Your task to perform on an android device: open app "VLC for Android" (install if not already installed), go to login, and select forgot password Image 0: 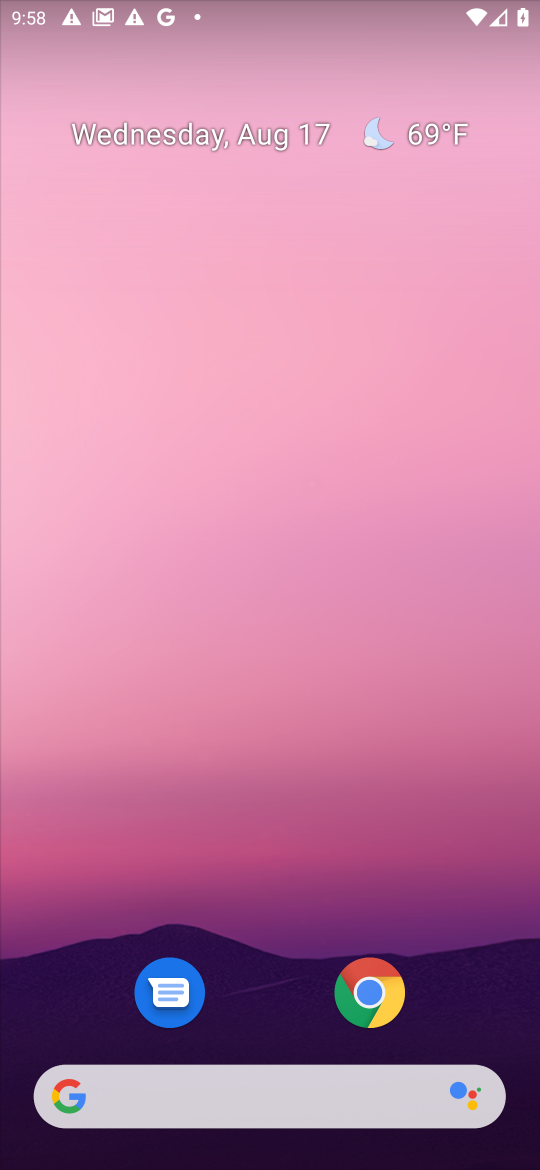
Step 0: drag from (500, 1042) to (243, 29)
Your task to perform on an android device: open app "VLC for Android" (install if not already installed), go to login, and select forgot password Image 1: 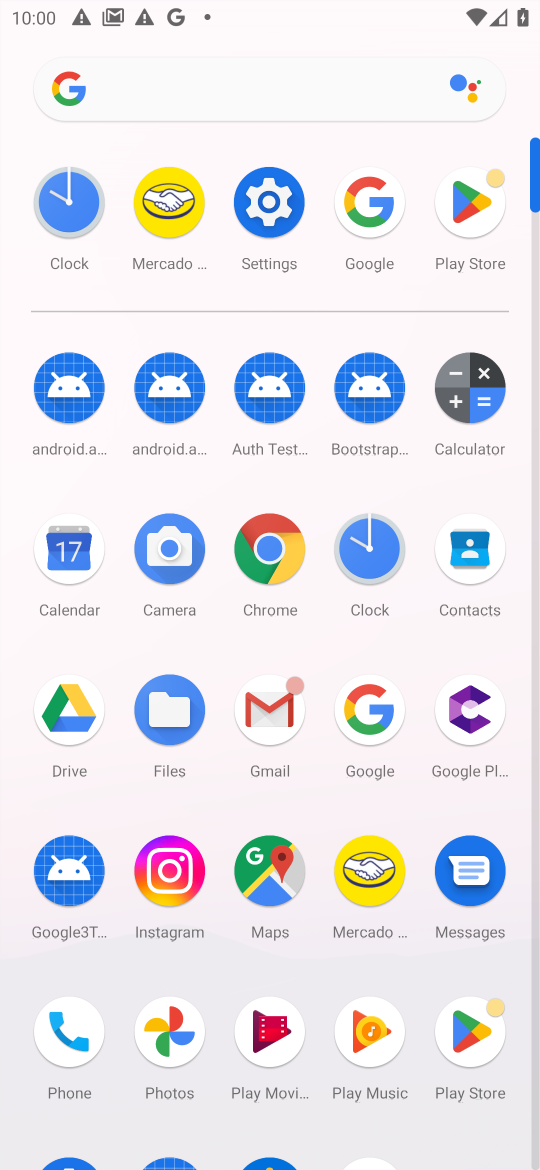
Step 1: click (484, 1028)
Your task to perform on an android device: open app "VLC for Android" (install if not already installed), go to login, and select forgot password Image 2: 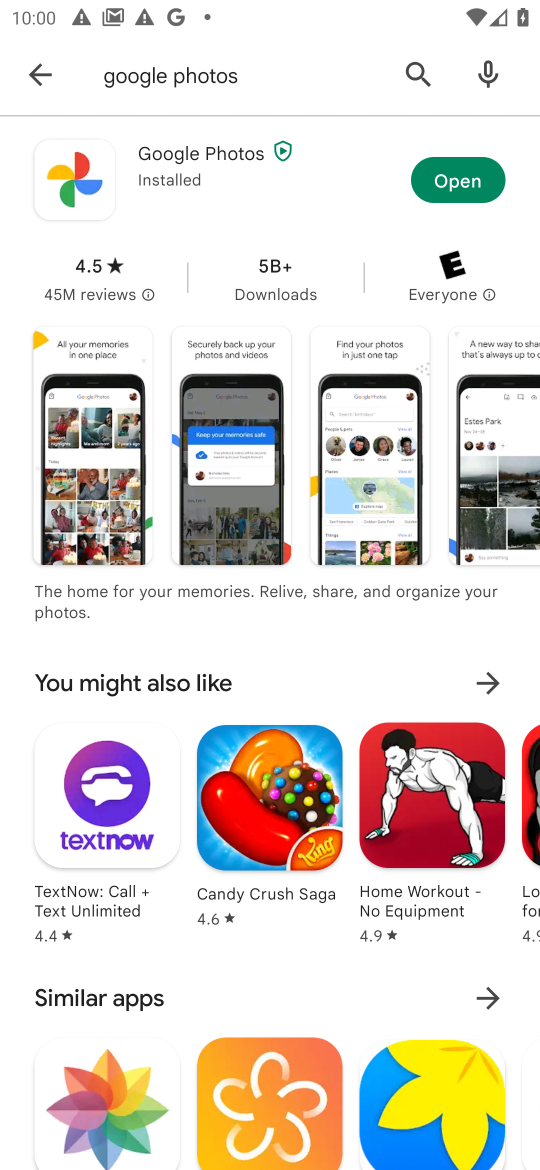
Step 2: press back button
Your task to perform on an android device: open app "VLC for Android" (install if not already installed), go to login, and select forgot password Image 3: 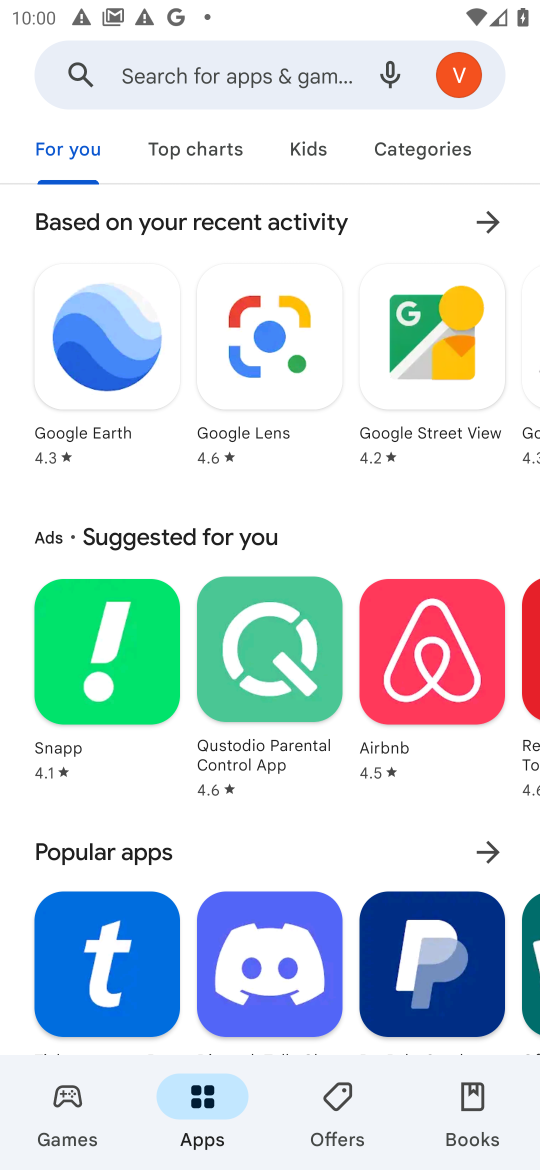
Step 3: click (172, 93)
Your task to perform on an android device: open app "VLC for Android" (install if not already installed), go to login, and select forgot password Image 4: 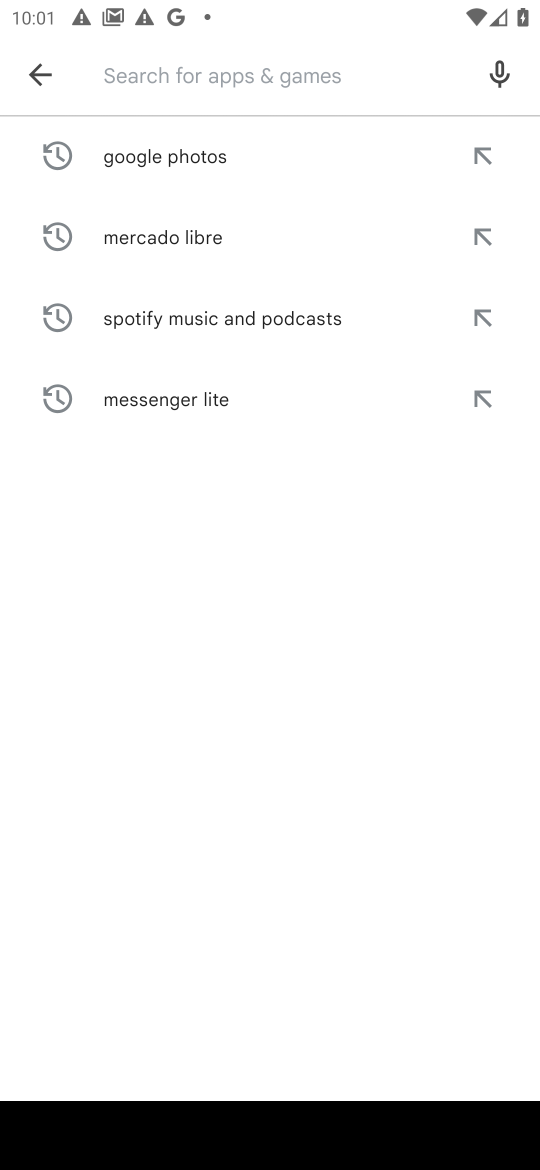
Step 4: type "VLC for Android"
Your task to perform on an android device: open app "VLC for Android" (install if not already installed), go to login, and select forgot password Image 5: 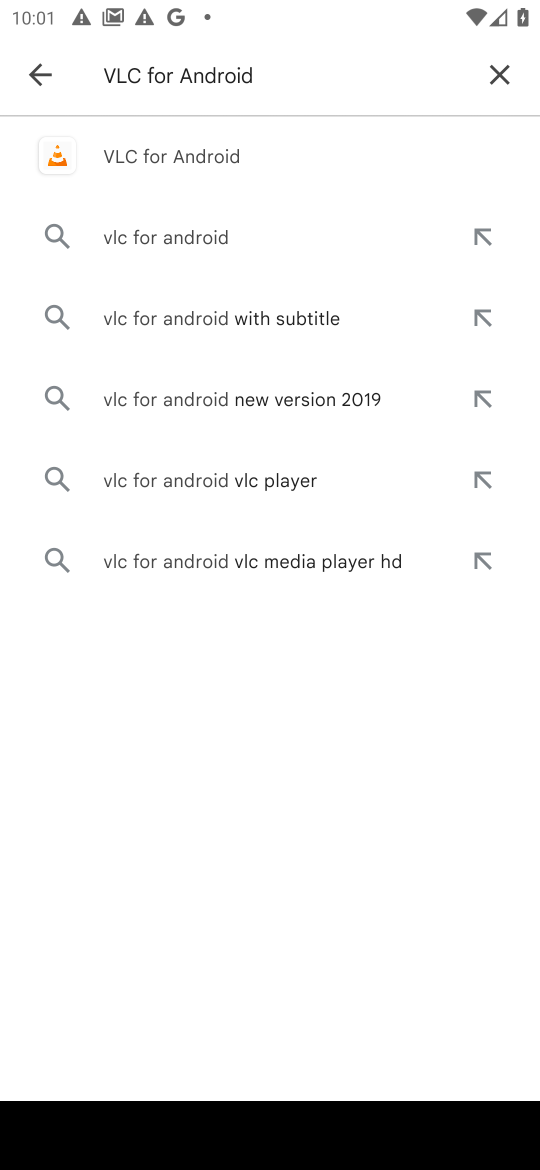
Step 5: click (162, 149)
Your task to perform on an android device: open app "VLC for Android" (install if not already installed), go to login, and select forgot password Image 6: 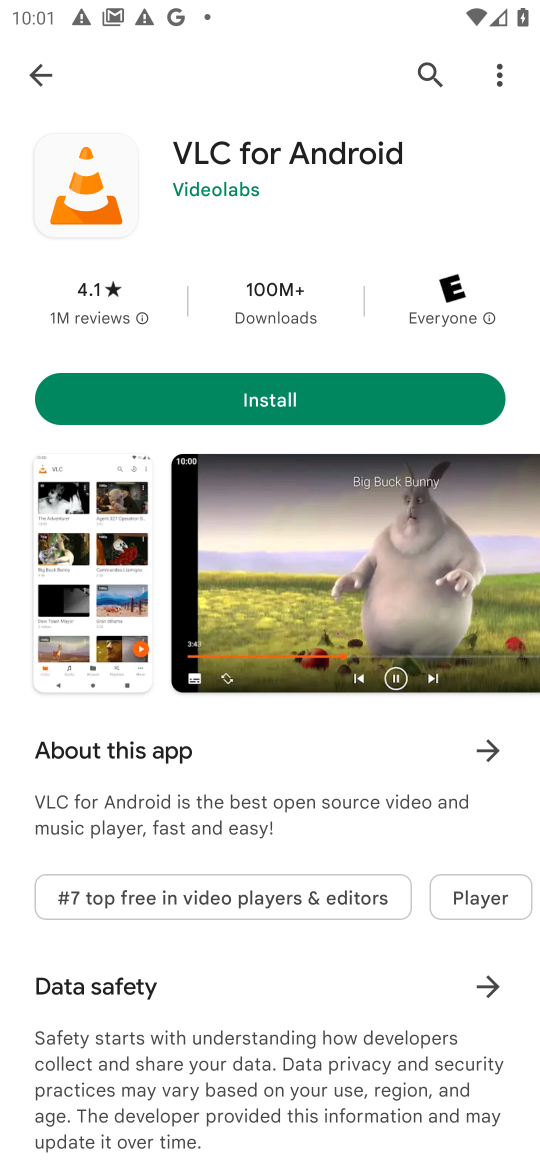
Step 6: task complete